Your task to perform on an android device: visit the assistant section in the google photos Image 0: 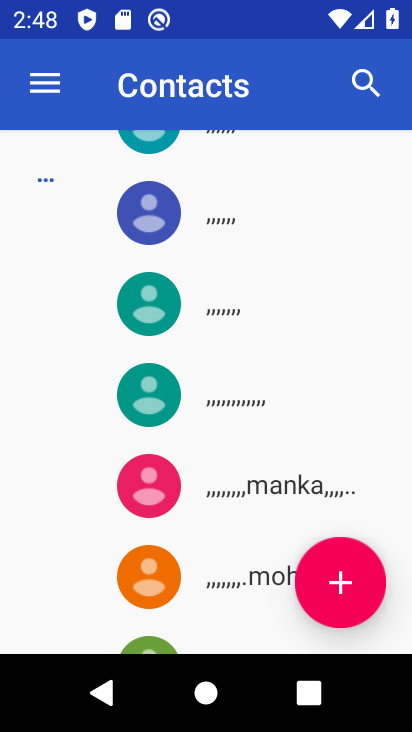
Step 0: press home button
Your task to perform on an android device: visit the assistant section in the google photos Image 1: 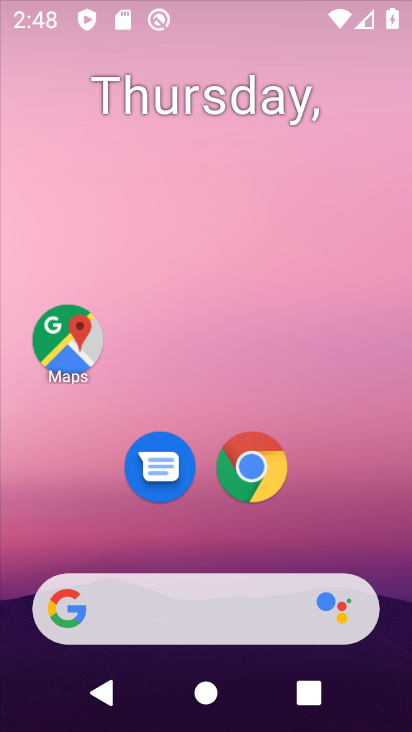
Step 1: drag from (244, 583) to (301, 101)
Your task to perform on an android device: visit the assistant section in the google photos Image 2: 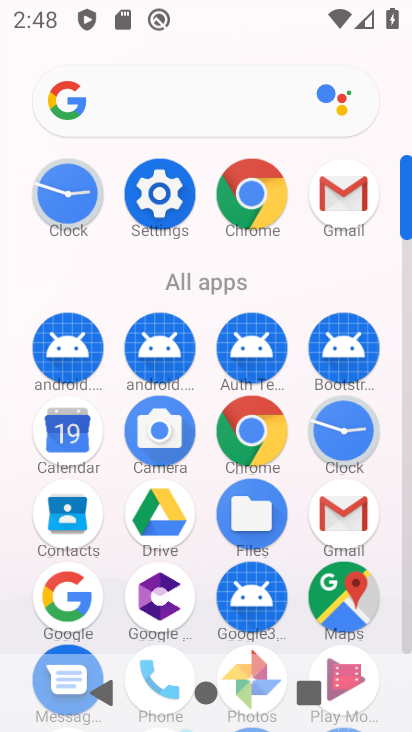
Step 2: drag from (210, 535) to (217, 272)
Your task to perform on an android device: visit the assistant section in the google photos Image 3: 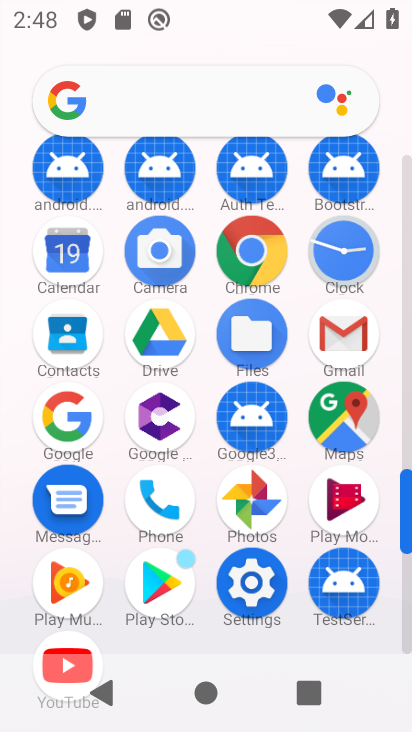
Step 3: click (254, 512)
Your task to perform on an android device: visit the assistant section in the google photos Image 4: 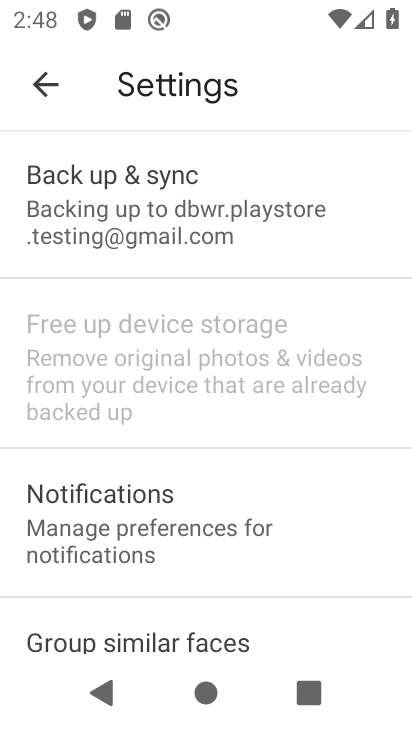
Step 4: click (44, 77)
Your task to perform on an android device: visit the assistant section in the google photos Image 5: 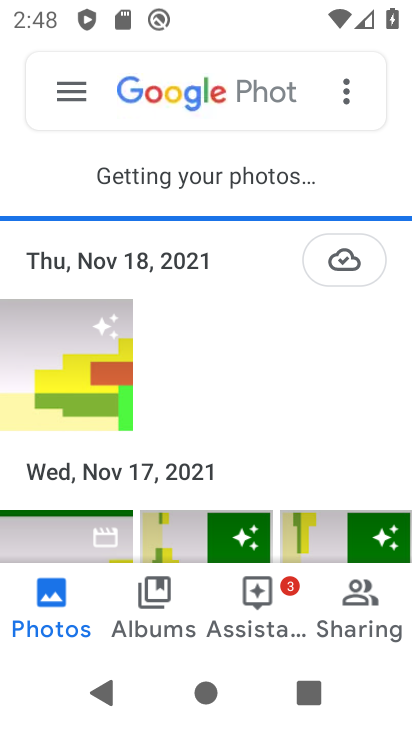
Step 5: click (264, 569)
Your task to perform on an android device: visit the assistant section in the google photos Image 6: 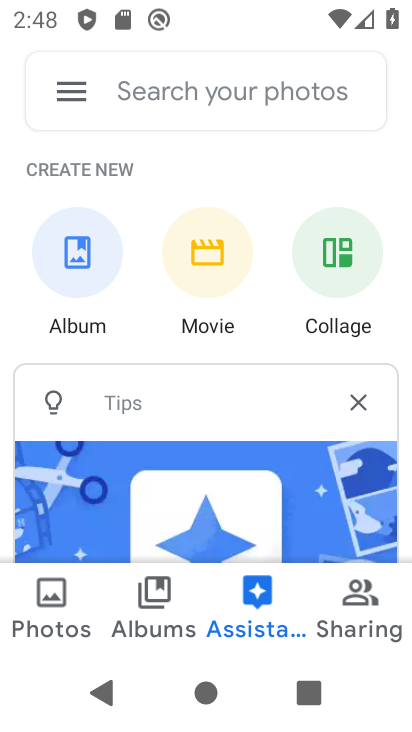
Step 6: task complete